Your task to perform on an android device: Show me popular videos on Youtube Image 0: 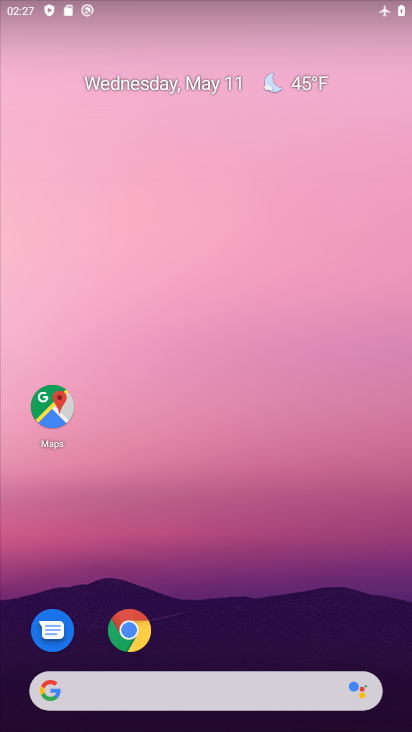
Step 0: drag from (177, 730) to (180, 476)
Your task to perform on an android device: Show me popular videos on Youtube Image 1: 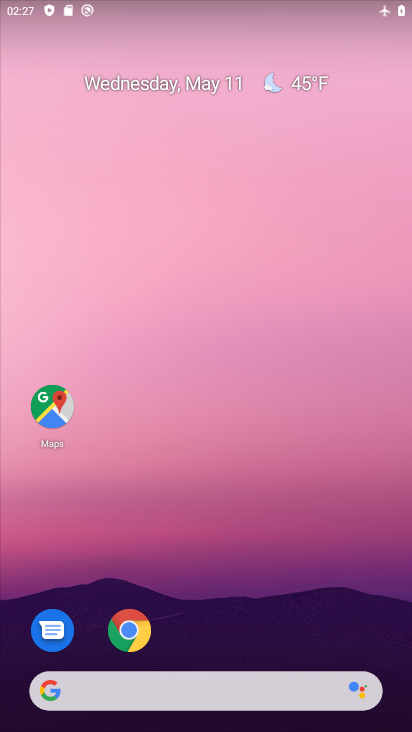
Step 1: drag from (231, 729) to (195, 101)
Your task to perform on an android device: Show me popular videos on Youtube Image 2: 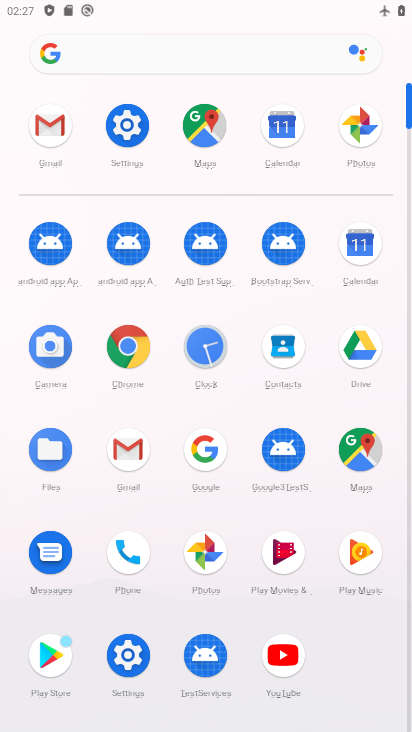
Step 2: click (284, 659)
Your task to perform on an android device: Show me popular videos on Youtube Image 3: 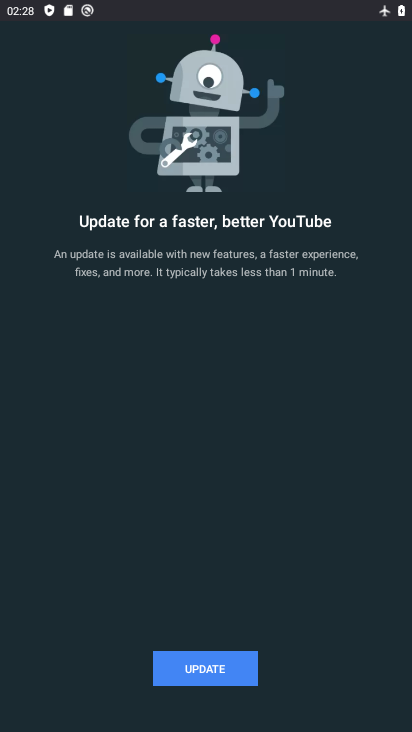
Step 3: task complete